Your task to perform on an android device: turn off airplane mode Image 0: 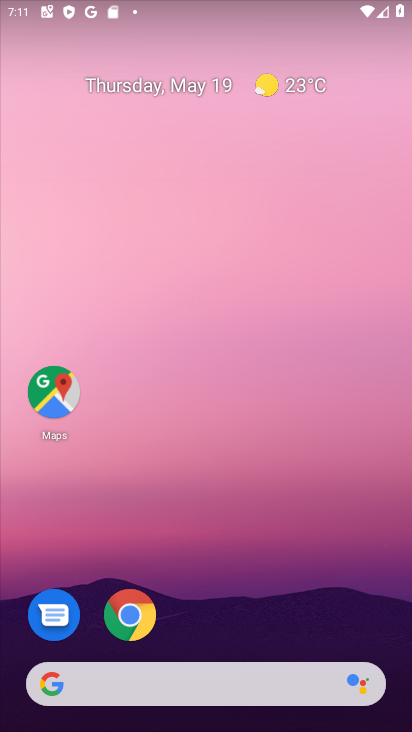
Step 0: drag from (291, 636) to (240, 104)
Your task to perform on an android device: turn off airplane mode Image 1: 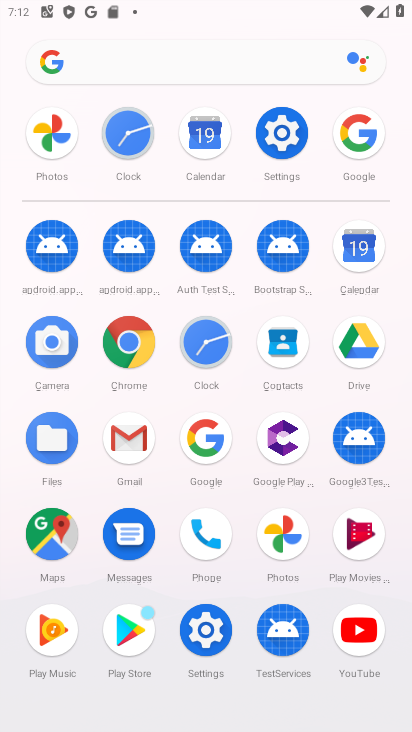
Step 1: task complete